Your task to perform on an android device: turn off notifications settings in the gmail app Image 0: 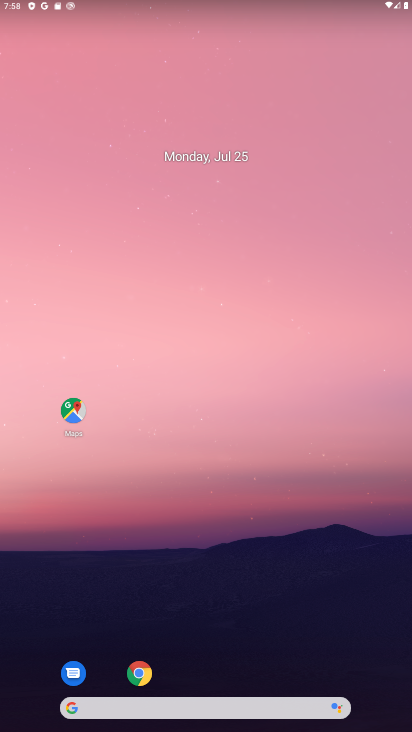
Step 0: drag from (220, 676) to (208, 134)
Your task to perform on an android device: turn off notifications settings in the gmail app Image 1: 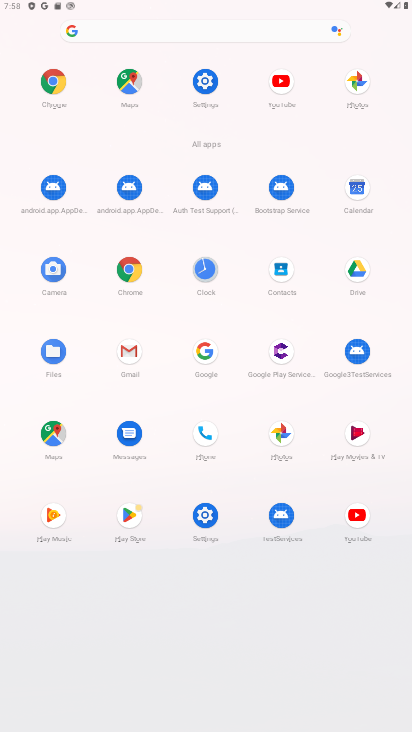
Step 1: click (220, 95)
Your task to perform on an android device: turn off notifications settings in the gmail app Image 2: 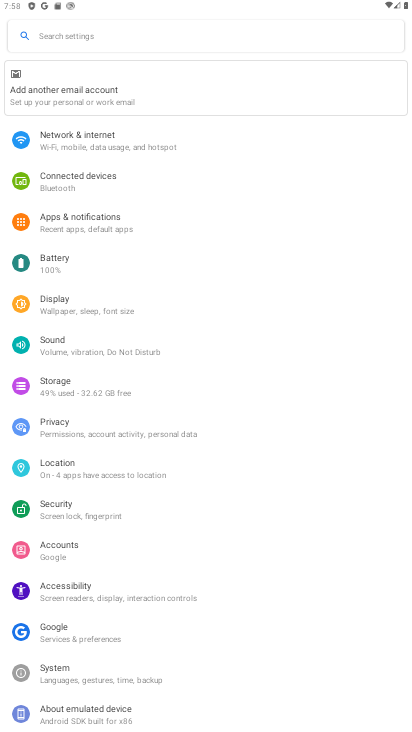
Step 2: click (134, 216)
Your task to perform on an android device: turn off notifications settings in the gmail app Image 3: 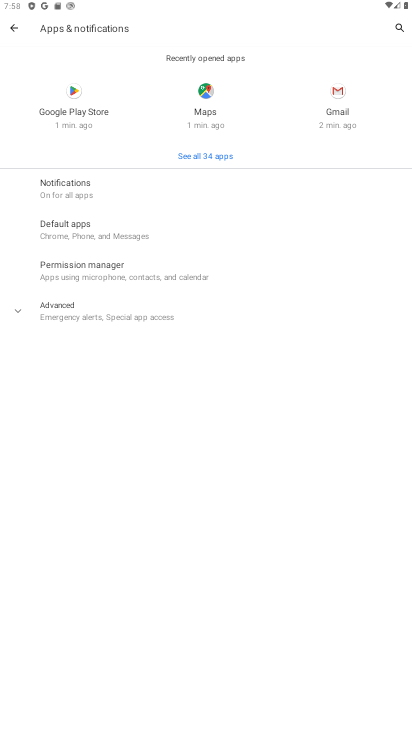
Step 3: click (169, 193)
Your task to perform on an android device: turn off notifications settings in the gmail app Image 4: 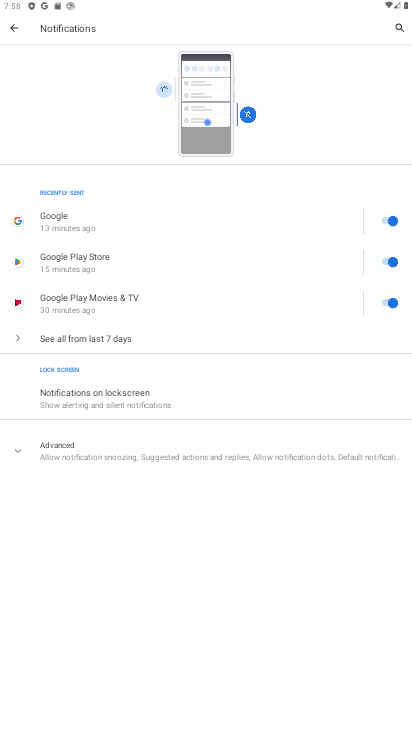
Step 4: task complete